Your task to perform on an android device: allow notifications from all sites in the chrome app Image 0: 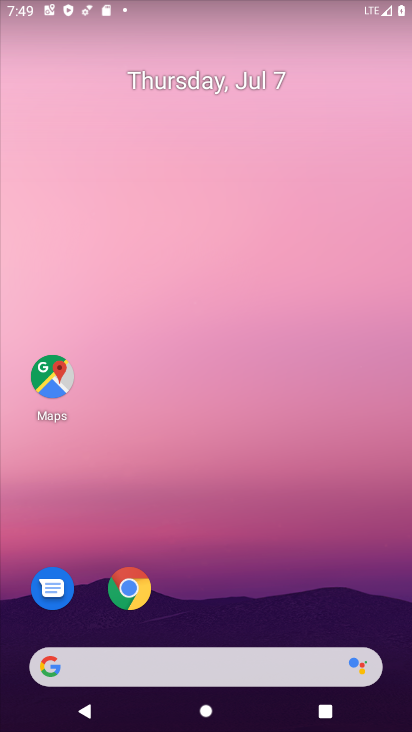
Step 0: drag from (202, 659) to (209, 320)
Your task to perform on an android device: allow notifications from all sites in the chrome app Image 1: 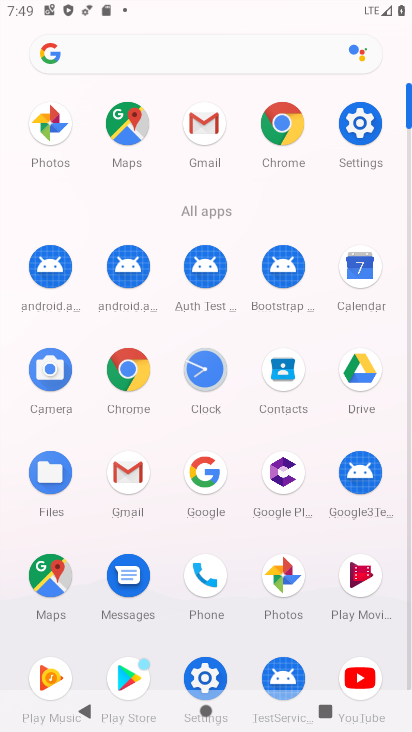
Step 1: click (288, 119)
Your task to perform on an android device: allow notifications from all sites in the chrome app Image 2: 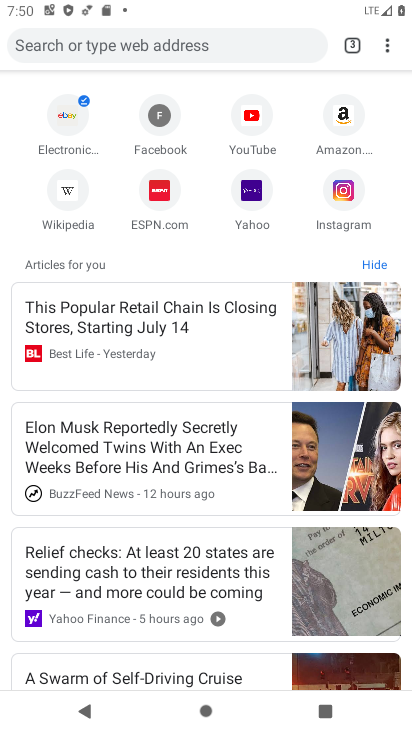
Step 2: click (387, 44)
Your task to perform on an android device: allow notifications from all sites in the chrome app Image 3: 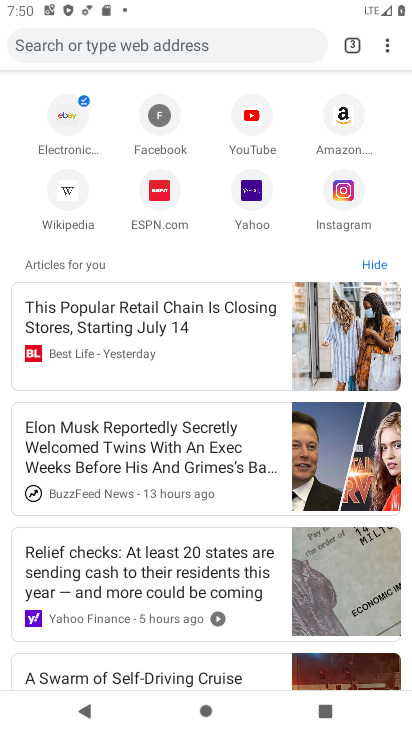
Step 3: click (396, 37)
Your task to perform on an android device: allow notifications from all sites in the chrome app Image 4: 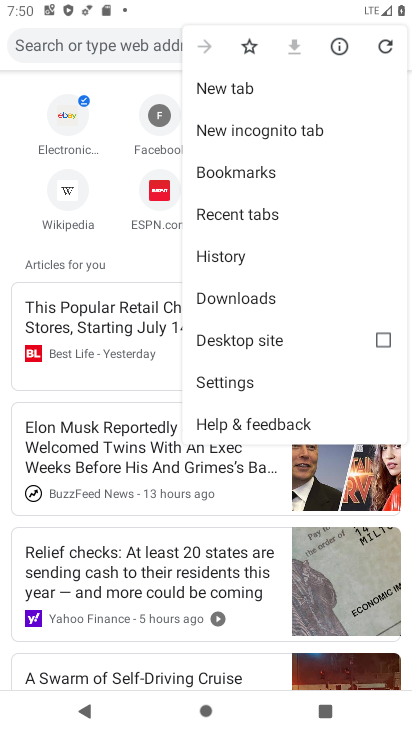
Step 4: click (249, 385)
Your task to perform on an android device: allow notifications from all sites in the chrome app Image 5: 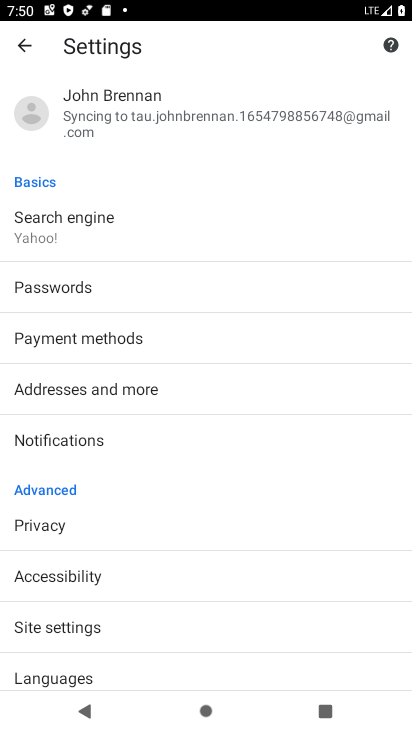
Step 5: click (122, 619)
Your task to perform on an android device: allow notifications from all sites in the chrome app Image 6: 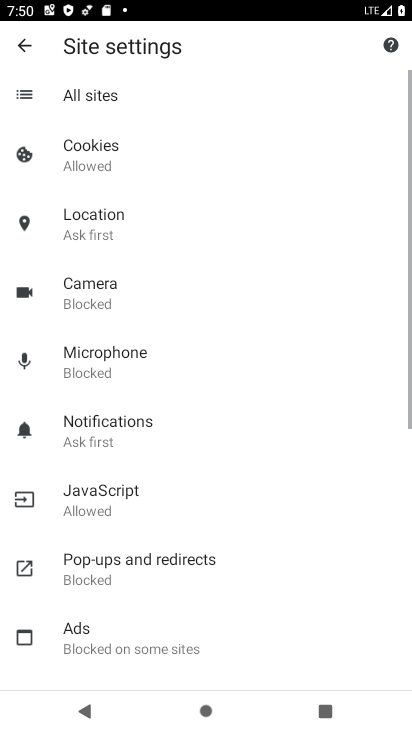
Step 6: click (94, 141)
Your task to perform on an android device: allow notifications from all sites in the chrome app Image 7: 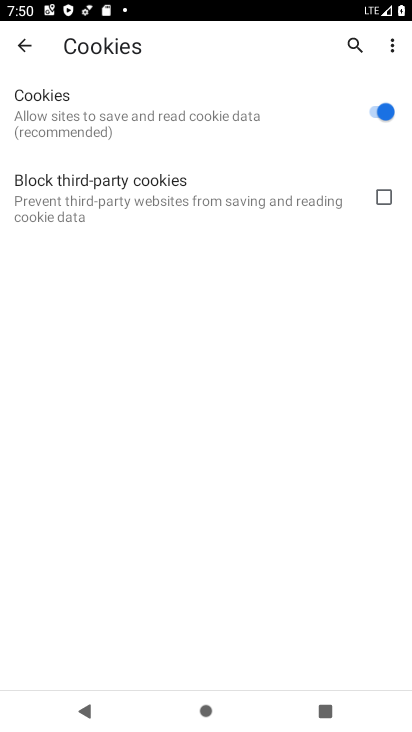
Step 7: click (25, 51)
Your task to perform on an android device: allow notifications from all sites in the chrome app Image 8: 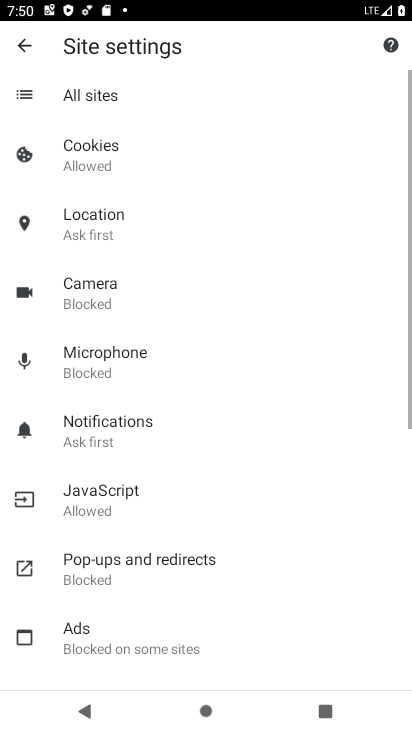
Step 8: click (153, 228)
Your task to perform on an android device: allow notifications from all sites in the chrome app Image 9: 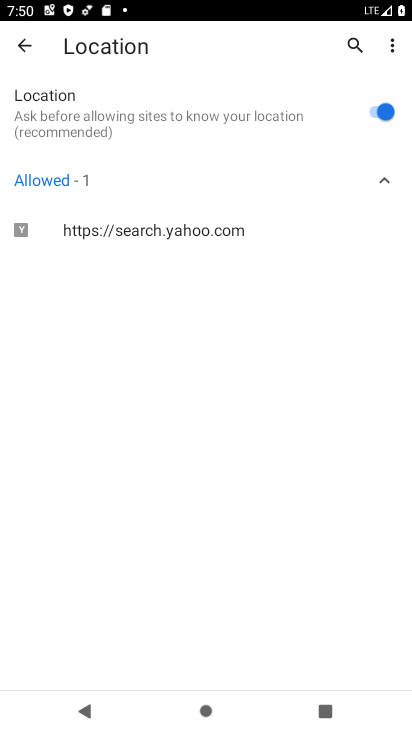
Step 9: click (25, 40)
Your task to perform on an android device: allow notifications from all sites in the chrome app Image 10: 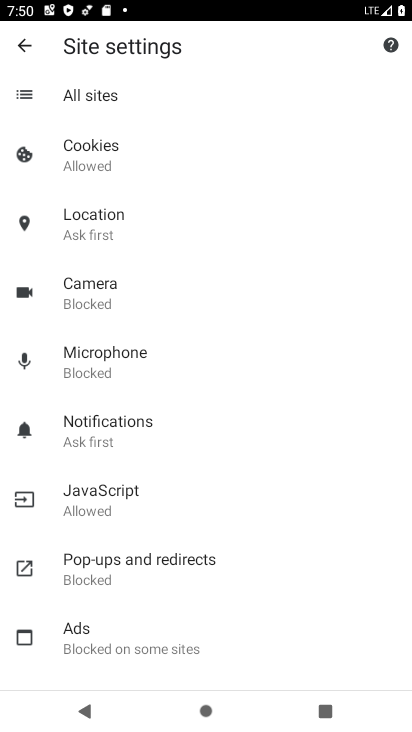
Step 10: click (142, 275)
Your task to perform on an android device: allow notifications from all sites in the chrome app Image 11: 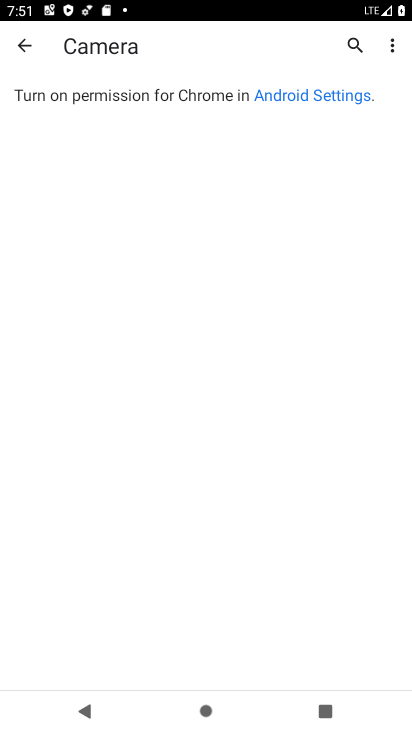
Step 11: click (7, 46)
Your task to perform on an android device: allow notifications from all sites in the chrome app Image 12: 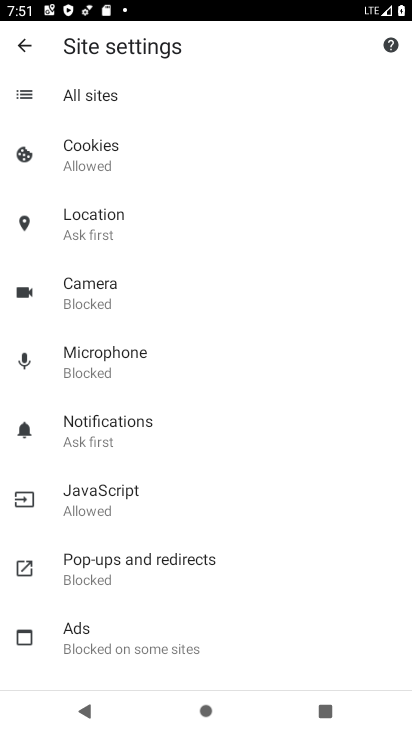
Step 12: click (144, 428)
Your task to perform on an android device: allow notifications from all sites in the chrome app Image 13: 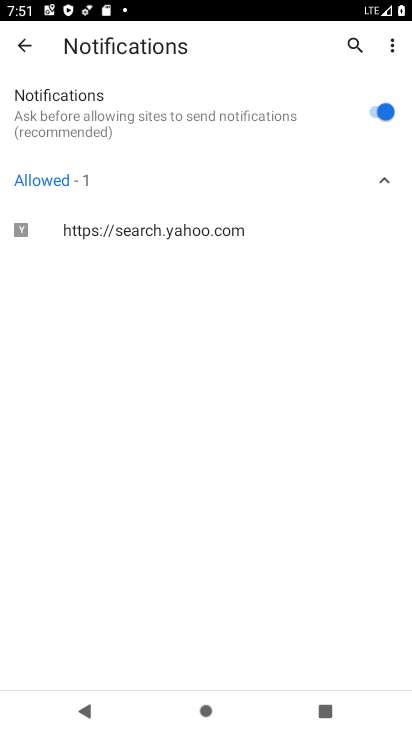
Step 13: click (24, 44)
Your task to perform on an android device: allow notifications from all sites in the chrome app Image 14: 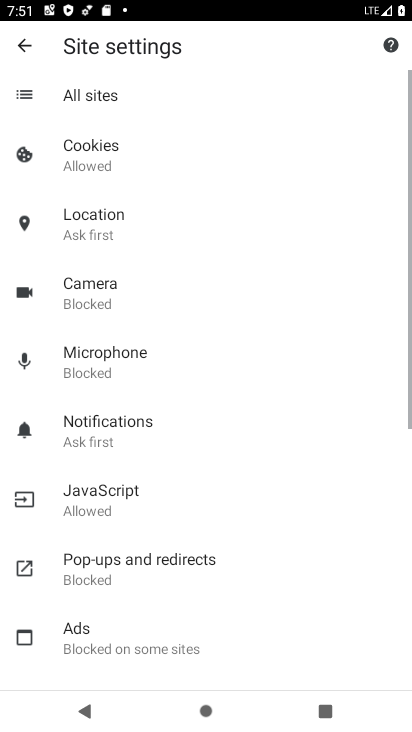
Step 14: click (129, 510)
Your task to perform on an android device: allow notifications from all sites in the chrome app Image 15: 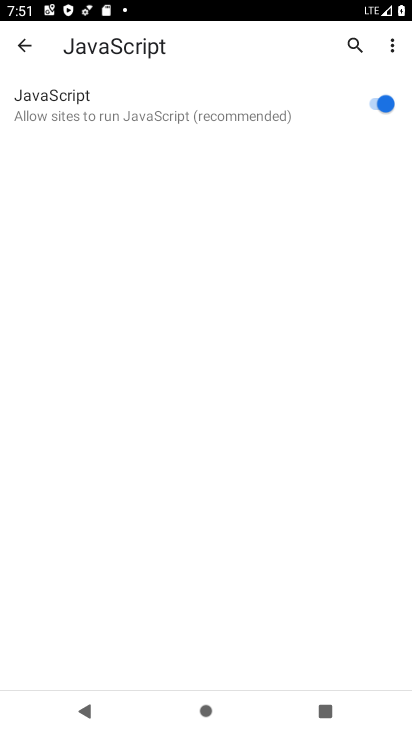
Step 15: click (18, 46)
Your task to perform on an android device: allow notifications from all sites in the chrome app Image 16: 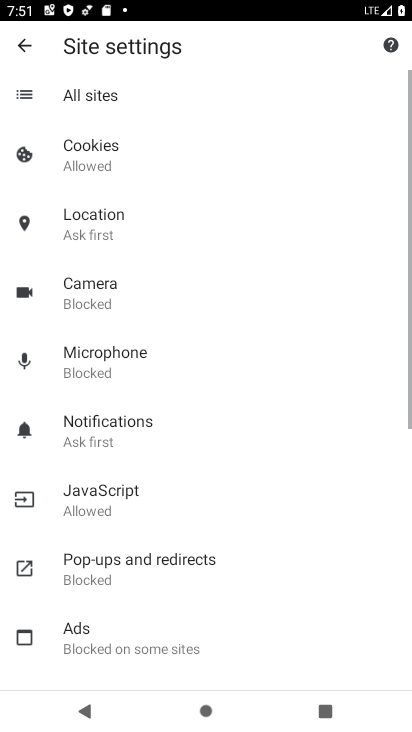
Step 16: task complete